Your task to perform on an android device: Show the shopping cart on amazon.com. Image 0: 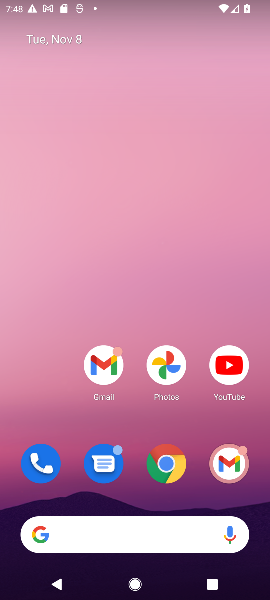
Step 0: click (169, 472)
Your task to perform on an android device: Show the shopping cart on amazon.com. Image 1: 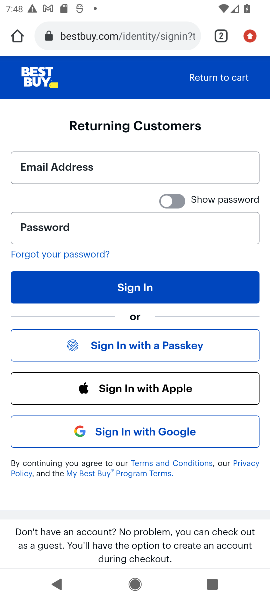
Step 1: click (86, 29)
Your task to perform on an android device: Show the shopping cart on amazon.com. Image 2: 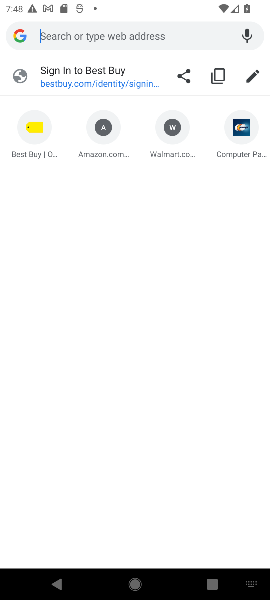
Step 2: click (98, 132)
Your task to perform on an android device: Show the shopping cart on amazon.com. Image 3: 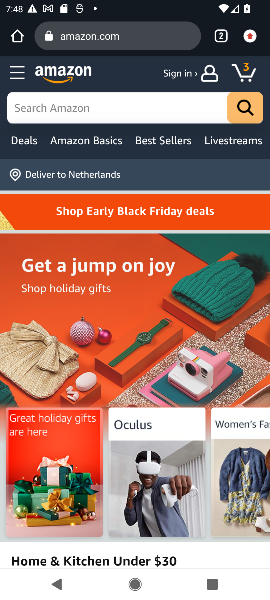
Step 3: click (244, 81)
Your task to perform on an android device: Show the shopping cart on amazon.com. Image 4: 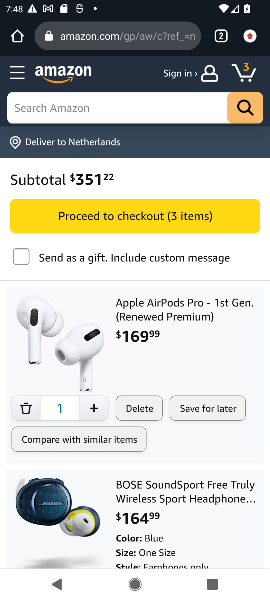
Step 4: task complete